Your task to perform on an android device: Go to Reddit.com Image 0: 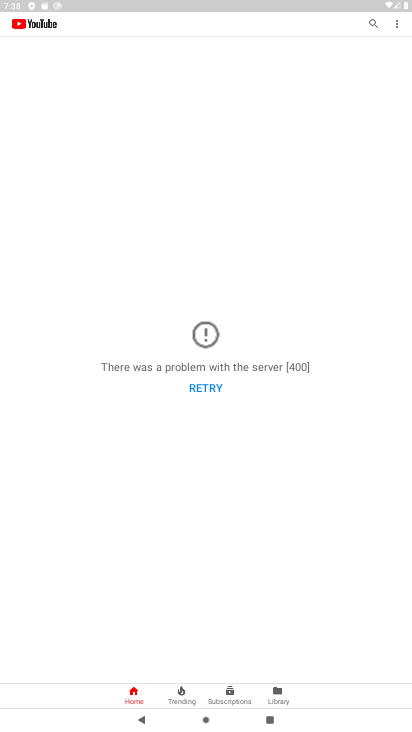
Step 0: press home button
Your task to perform on an android device: Go to Reddit.com Image 1: 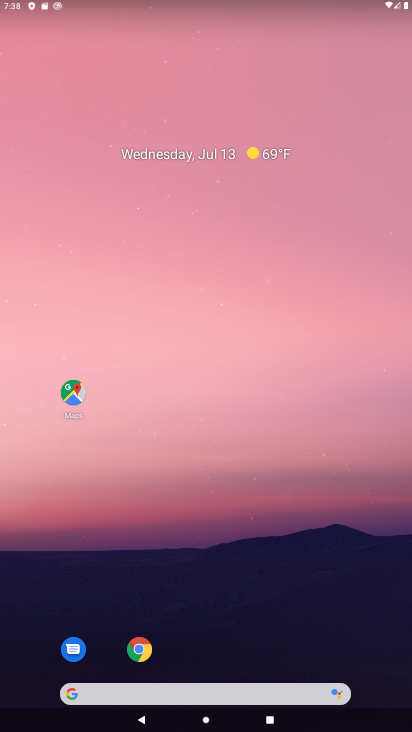
Step 1: drag from (175, 645) to (207, 320)
Your task to perform on an android device: Go to Reddit.com Image 2: 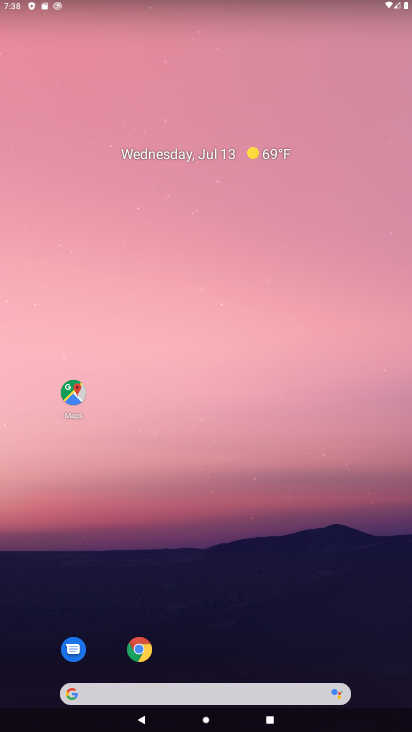
Step 2: drag from (192, 685) to (188, 397)
Your task to perform on an android device: Go to Reddit.com Image 3: 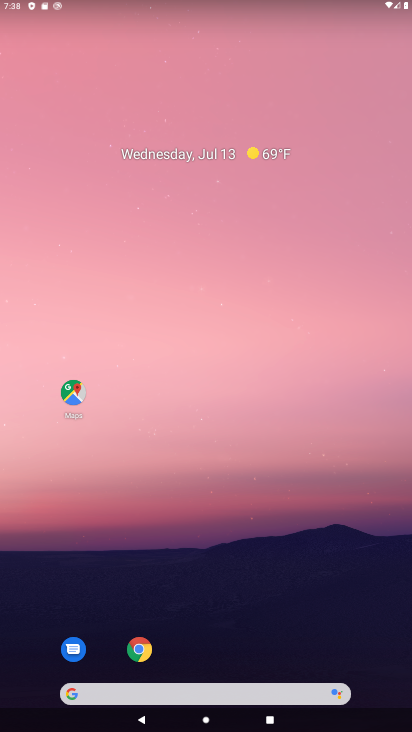
Step 3: drag from (200, 676) to (238, 257)
Your task to perform on an android device: Go to Reddit.com Image 4: 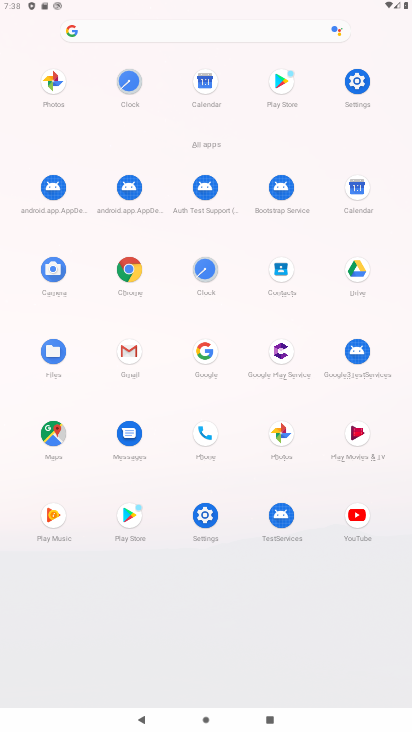
Step 4: click (202, 354)
Your task to perform on an android device: Go to Reddit.com Image 5: 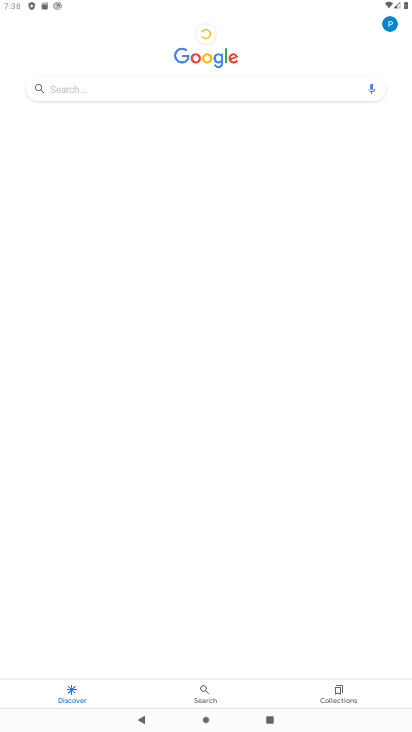
Step 5: click (112, 91)
Your task to perform on an android device: Go to Reddit.com Image 6: 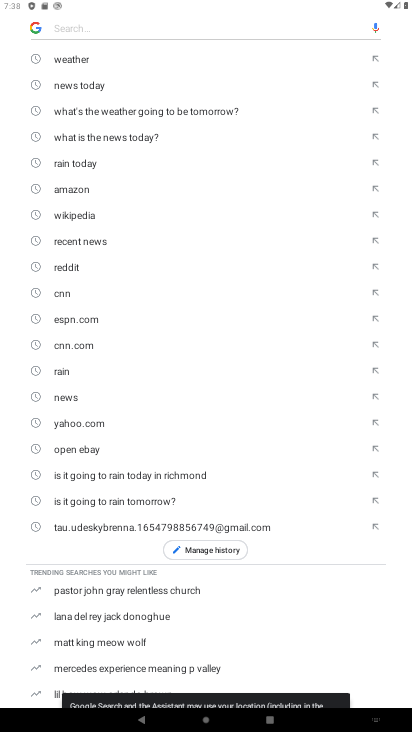
Step 6: click (75, 265)
Your task to perform on an android device: Go to Reddit.com Image 7: 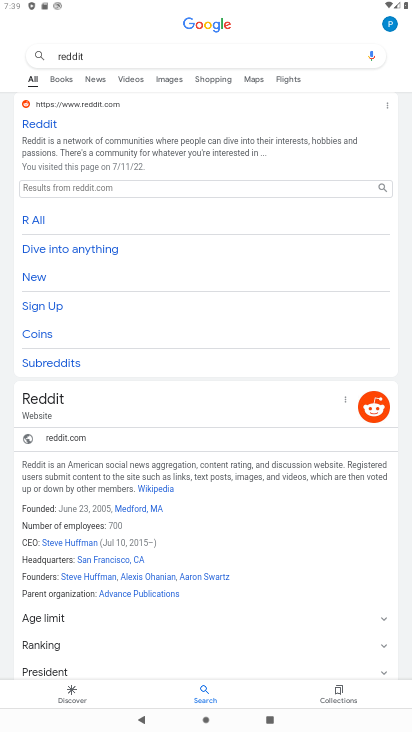
Step 7: task complete